Your task to perform on an android device: Is it going to rain tomorrow? Image 0: 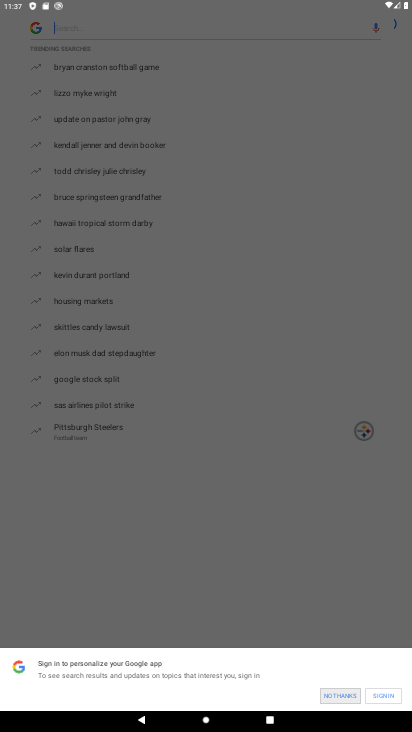
Step 0: press home button
Your task to perform on an android device: Is it going to rain tomorrow? Image 1: 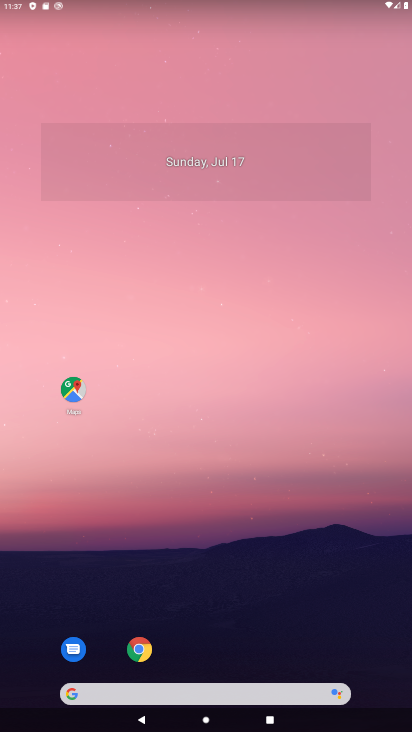
Step 1: click (133, 696)
Your task to perform on an android device: Is it going to rain tomorrow? Image 2: 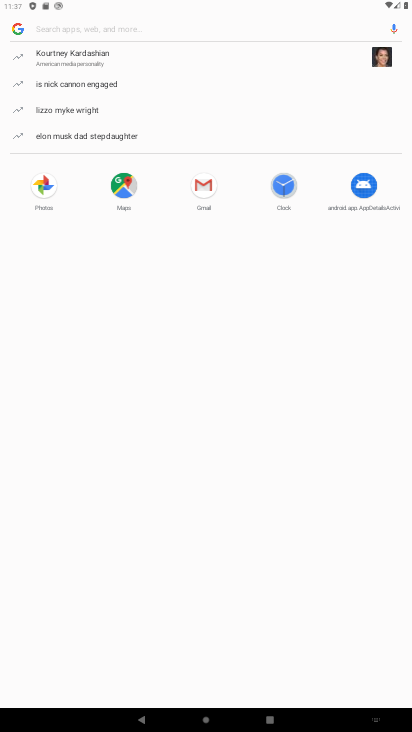
Step 2: click (43, 28)
Your task to perform on an android device: Is it going to rain tomorrow? Image 3: 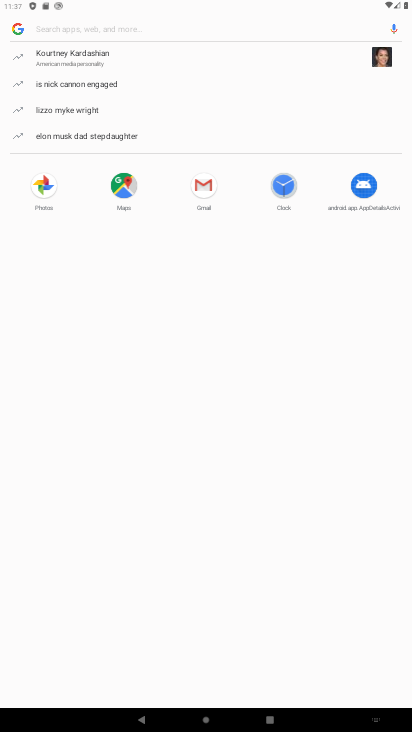
Step 3: type "Is it going to rain tomorrow?"
Your task to perform on an android device: Is it going to rain tomorrow? Image 4: 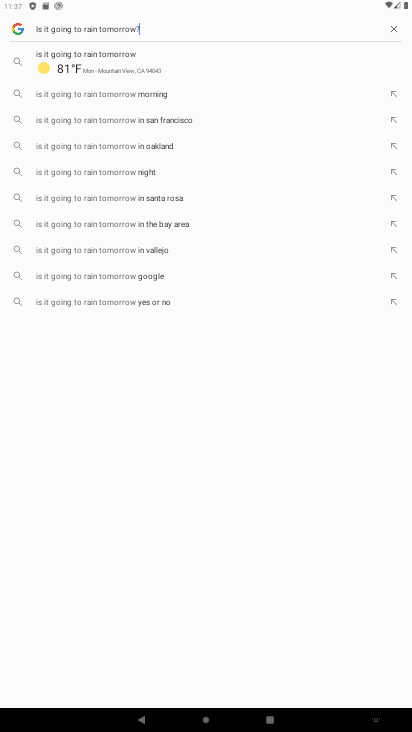
Step 4: type ""
Your task to perform on an android device: Is it going to rain tomorrow? Image 5: 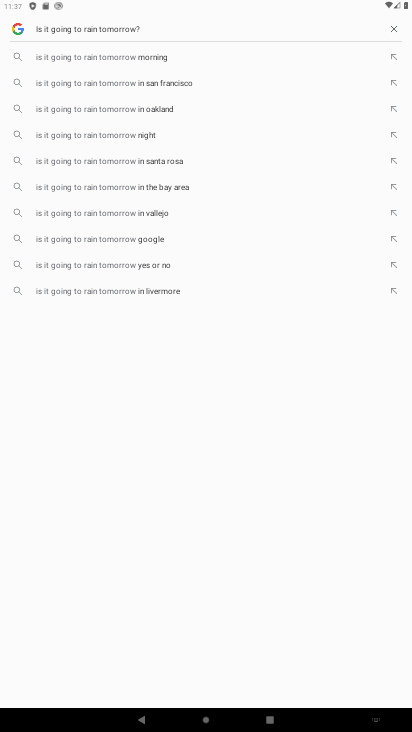
Step 5: type ""
Your task to perform on an android device: Is it going to rain tomorrow? Image 6: 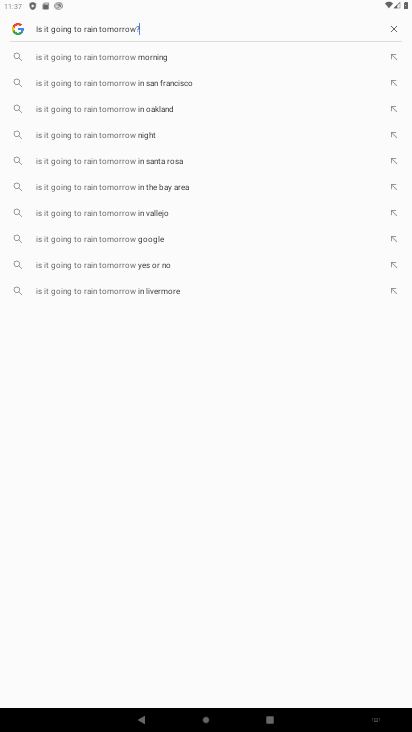
Step 6: type ""
Your task to perform on an android device: Is it going to rain tomorrow? Image 7: 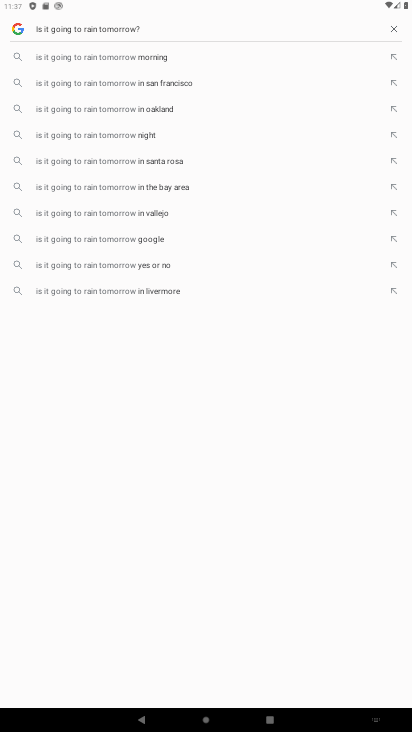
Step 7: task complete